Your task to perform on an android device: change timer sound Image 0: 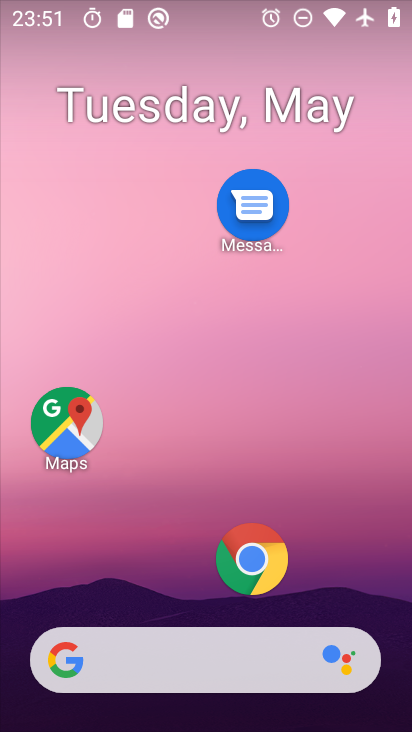
Step 0: drag from (177, 612) to (195, 253)
Your task to perform on an android device: change timer sound Image 1: 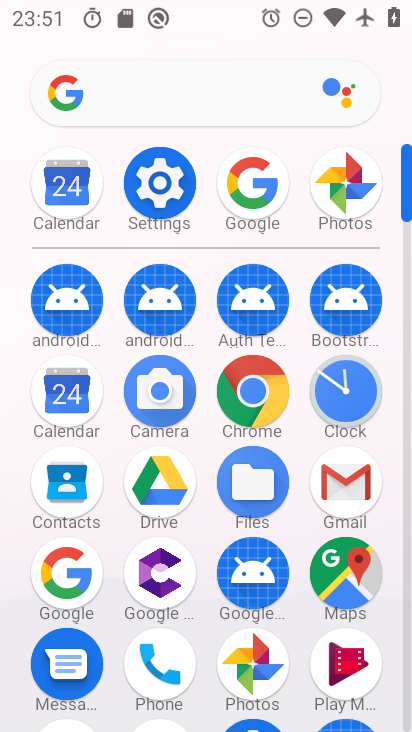
Step 1: click (320, 380)
Your task to perform on an android device: change timer sound Image 2: 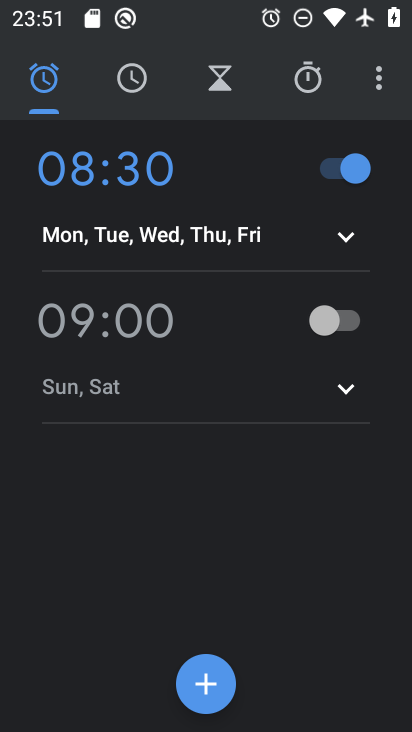
Step 2: click (382, 85)
Your task to perform on an android device: change timer sound Image 3: 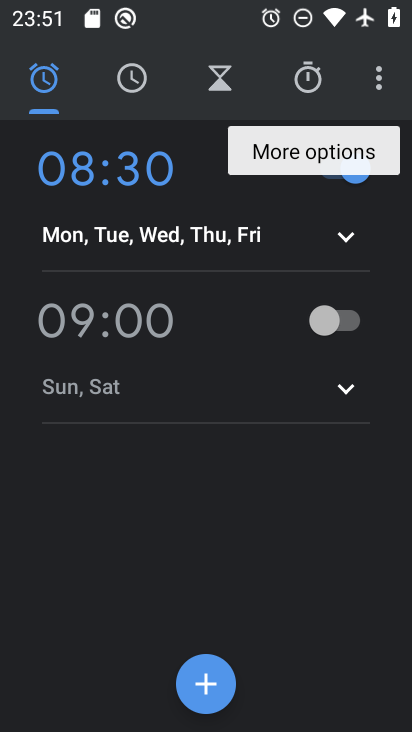
Step 3: click (382, 85)
Your task to perform on an android device: change timer sound Image 4: 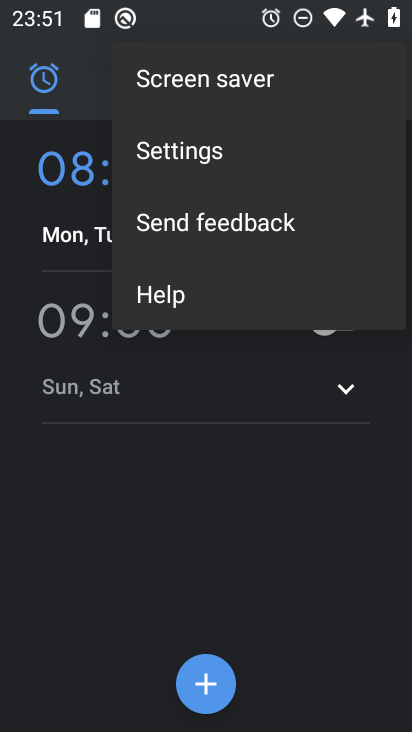
Step 4: click (241, 160)
Your task to perform on an android device: change timer sound Image 5: 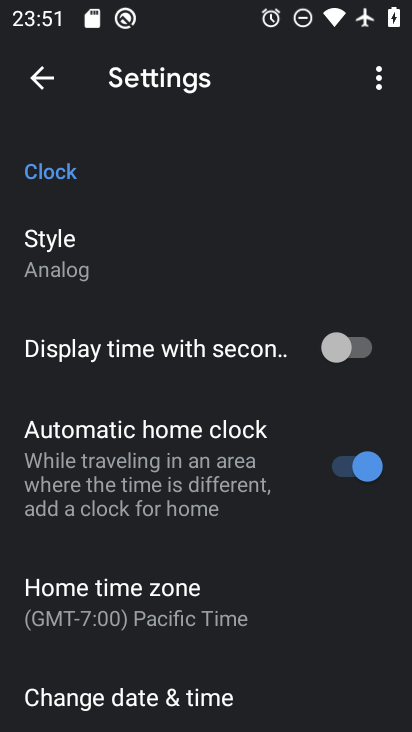
Step 5: drag from (155, 674) to (207, 276)
Your task to perform on an android device: change timer sound Image 6: 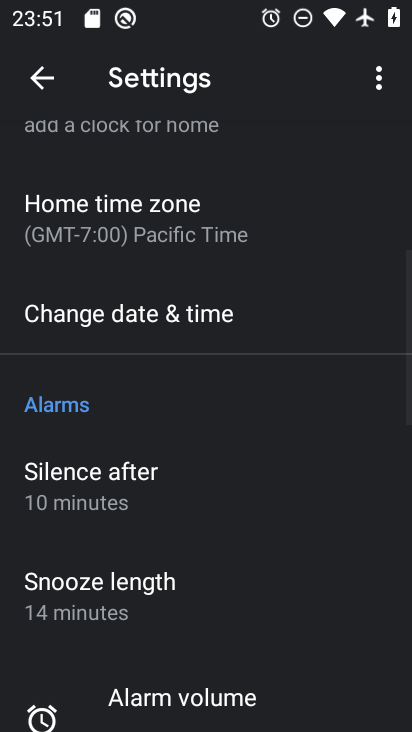
Step 6: drag from (169, 643) to (209, 352)
Your task to perform on an android device: change timer sound Image 7: 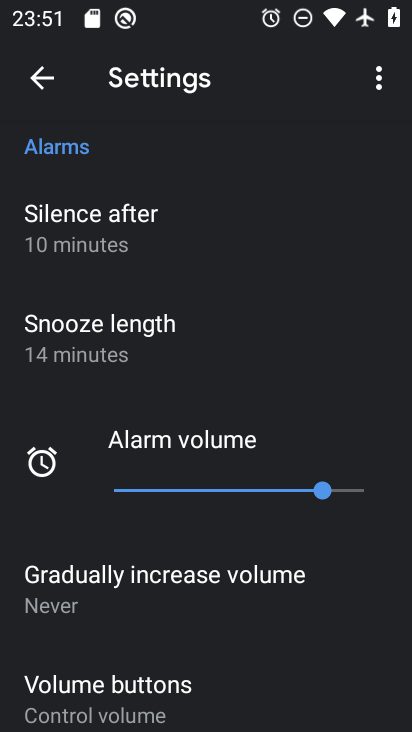
Step 7: drag from (218, 661) to (239, 347)
Your task to perform on an android device: change timer sound Image 8: 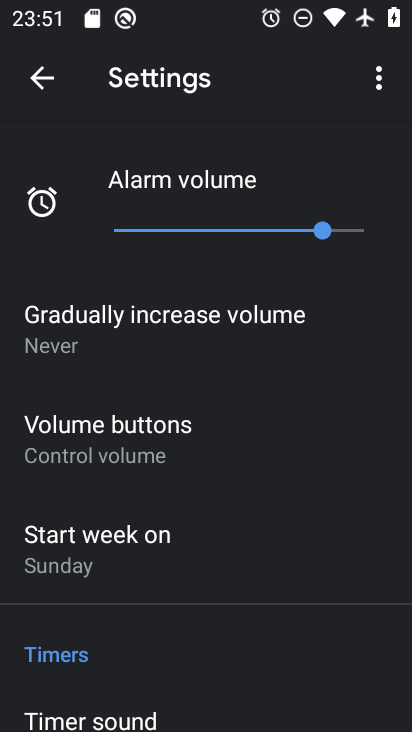
Step 8: drag from (242, 677) to (259, 458)
Your task to perform on an android device: change timer sound Image 9: 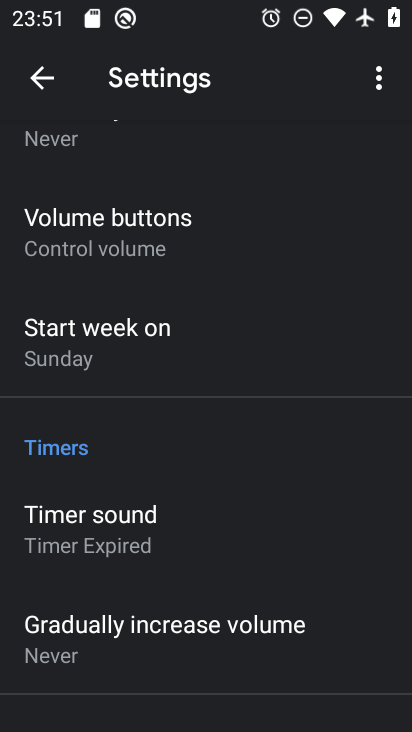
Step 9: click (155, 522)
Your task to perform on an android device: change timer sound Image 10: 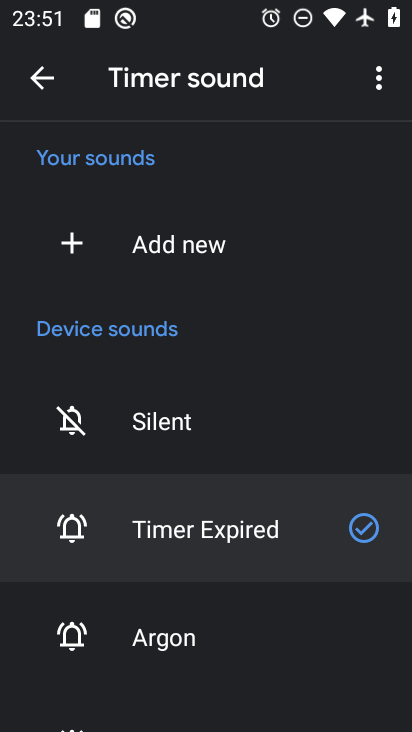
Step 10: click (177, 640)
Your task to perform on an android device: change timer sound Image 11: 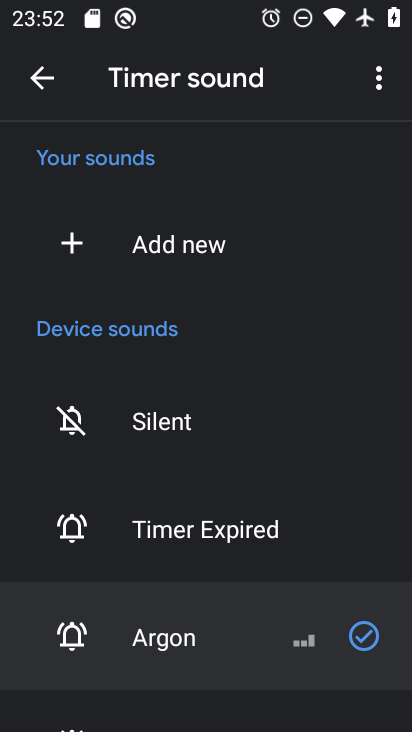
Step 11: task complete